Your task to perform on an android device: set the timer Image 0: 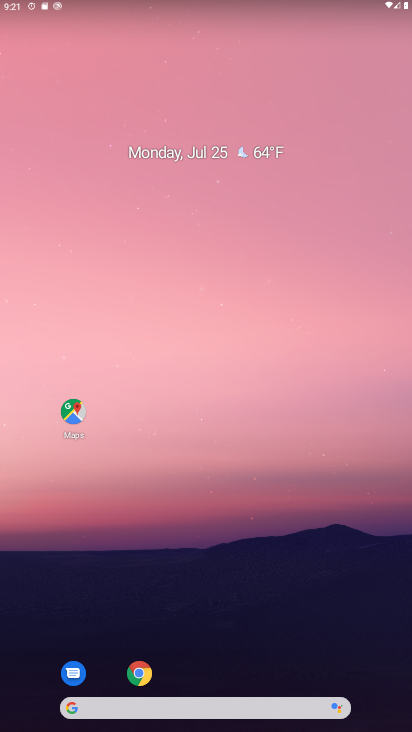
Step 0: press home button
Your task to perform on an android device: set the timer Image 1: 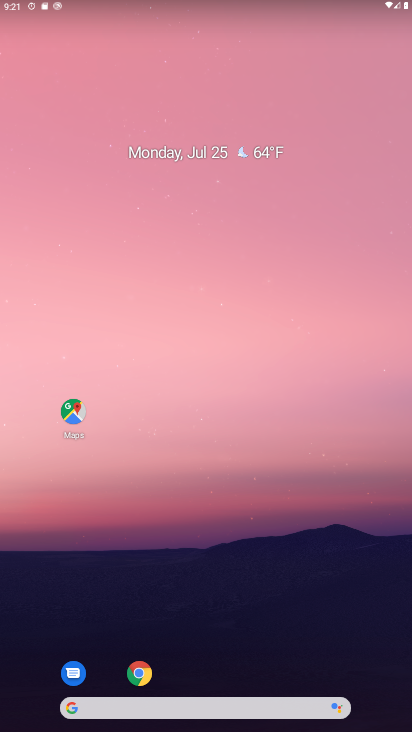
Step 1: drag from (214, 674) to (255, 0)
Your task to perform on an android device: set the timer Image 2: 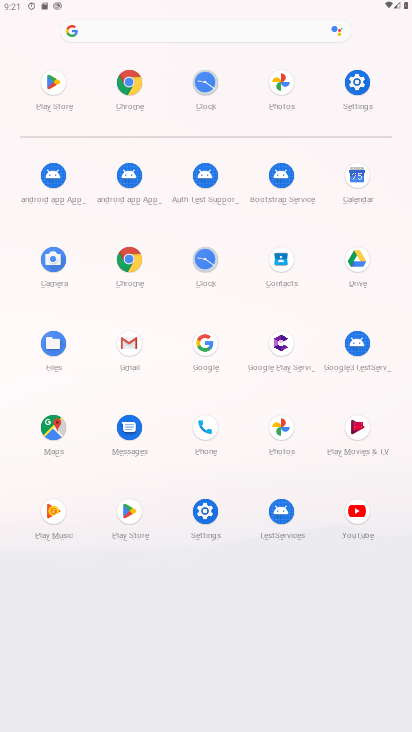
Step 2: click (205, 253)
Your task to perform on an android device: set the timer Image 3: 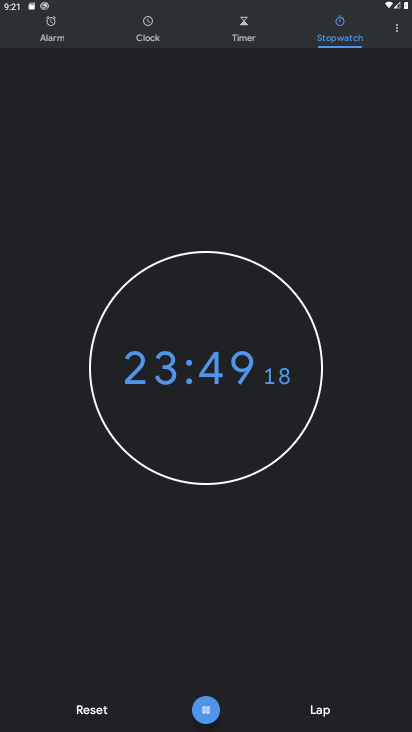
Step 3: click (240, 22)
Your task to perform on an android device: set the timer Image 4: 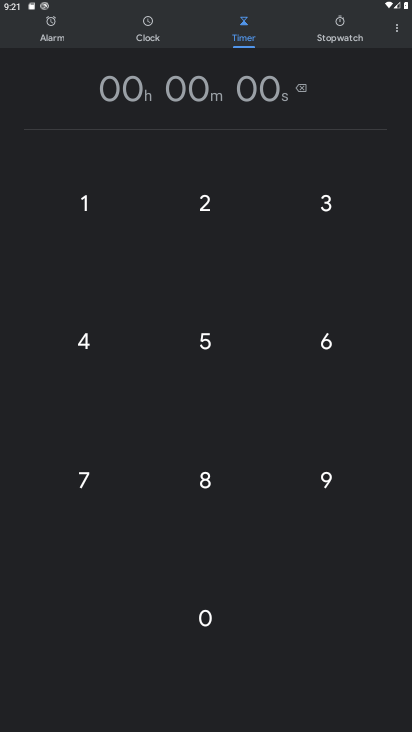
Step 4: click (211, 205)
Your task to perform on an android device: set the timer Image 5: 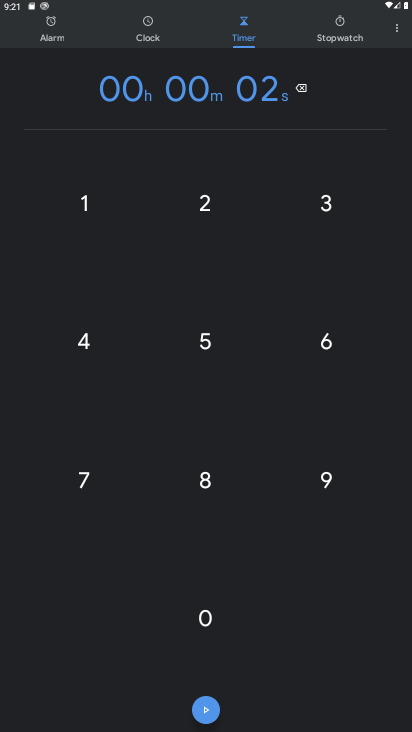
Step 5: click (197, 617)
Your task to perform on an android device: set the timer Image 6: 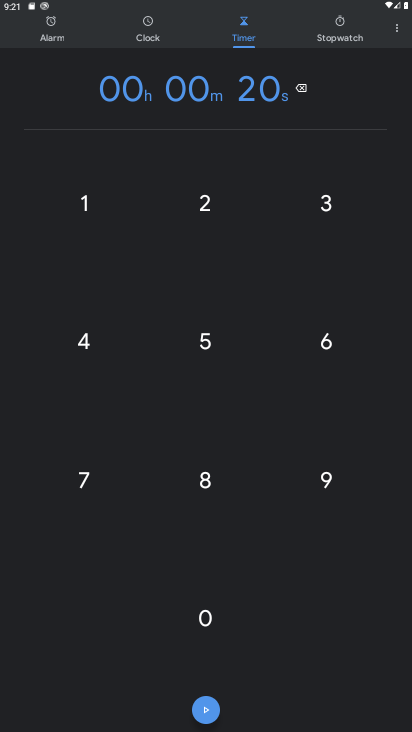
Step 6: click (197, 617)
Your task to perform on an android device: set the timer Image 7: 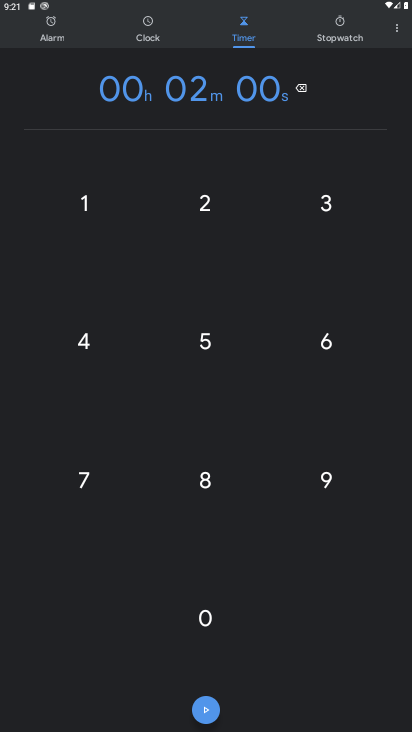
Step 7: click (197, 617)
Your task to perform on an android device: set the timer Image 8: 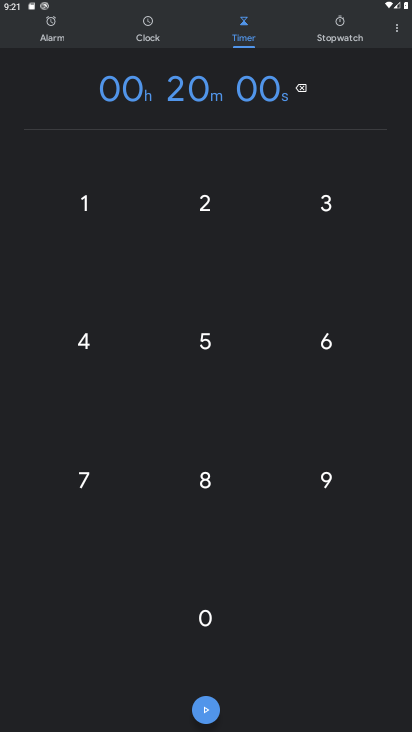
Step 8: click (202, 710)
Your task to perform on an android device: set the timer Image 9: 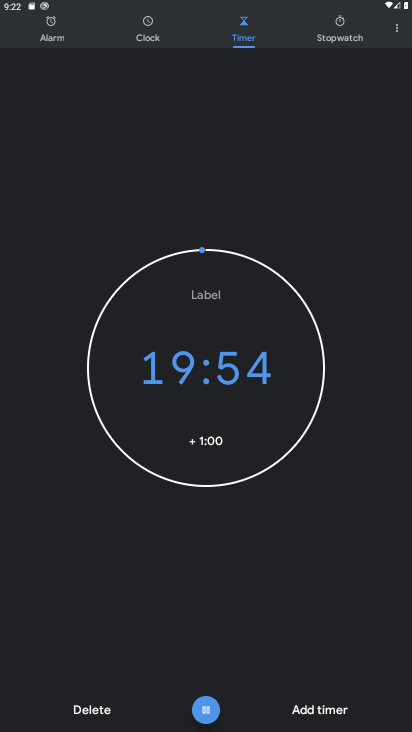
Step 9: task complete